Your task to perform on an android device: turn off location Image 0: 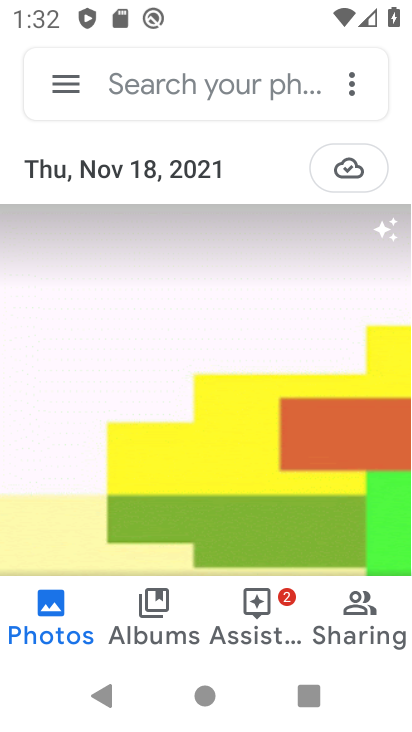
Step 0: press home button
Your task to perform on an android device: turn off location Image 1: 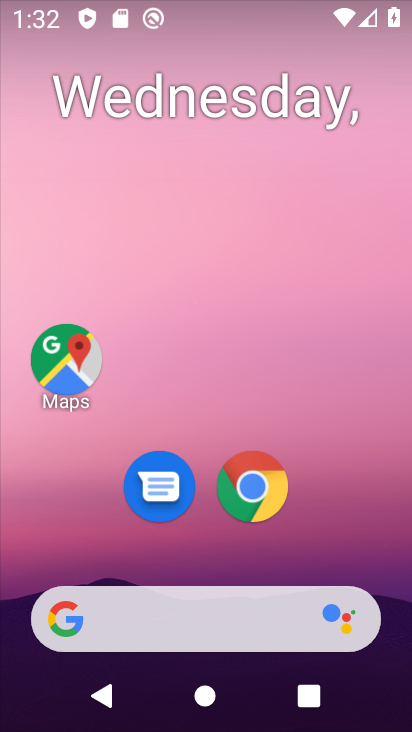
Step 1: drag from (165, 619) to (290, 241)
Your task to perform on an android device: turn off location Image 2: 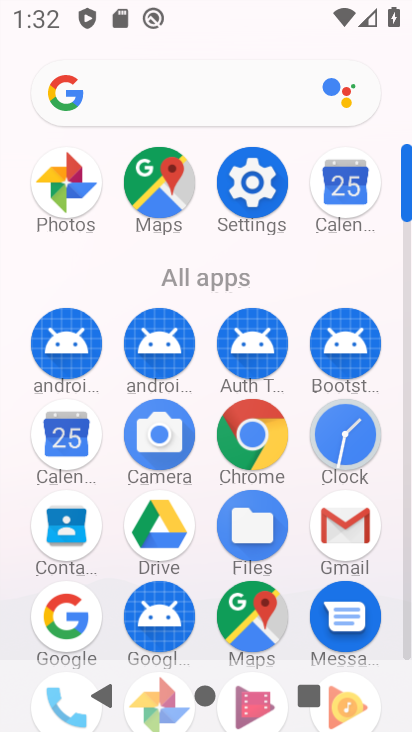
Step 2: click (245, 180)
Your task to perform on an android device: turn off location Image 3: 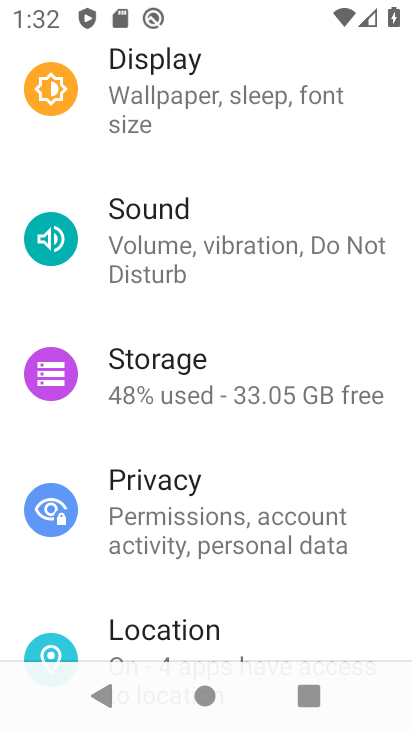
Step 3: click (196, 632)
Your task to perform on an android device: turn off location Image 4: 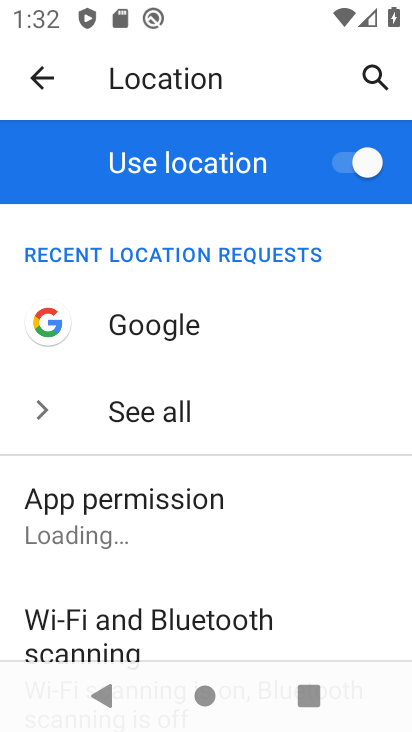
Step 4: click (351, 158)
Your task to perform on an android device: turn off location Image 5: 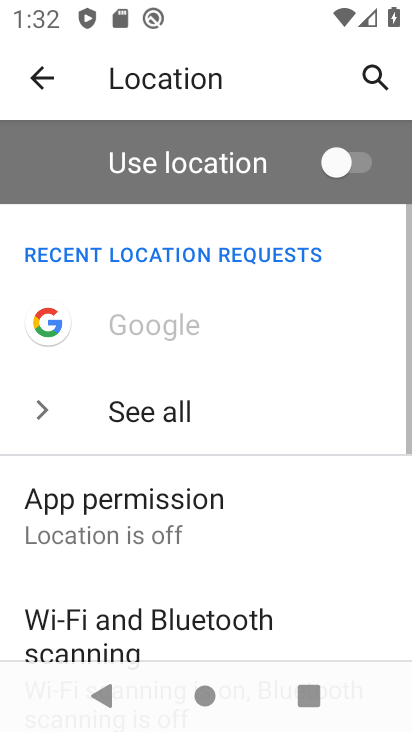
Step 5: task complete